Your task to perform on an android device: Open CNN.com Image 0: 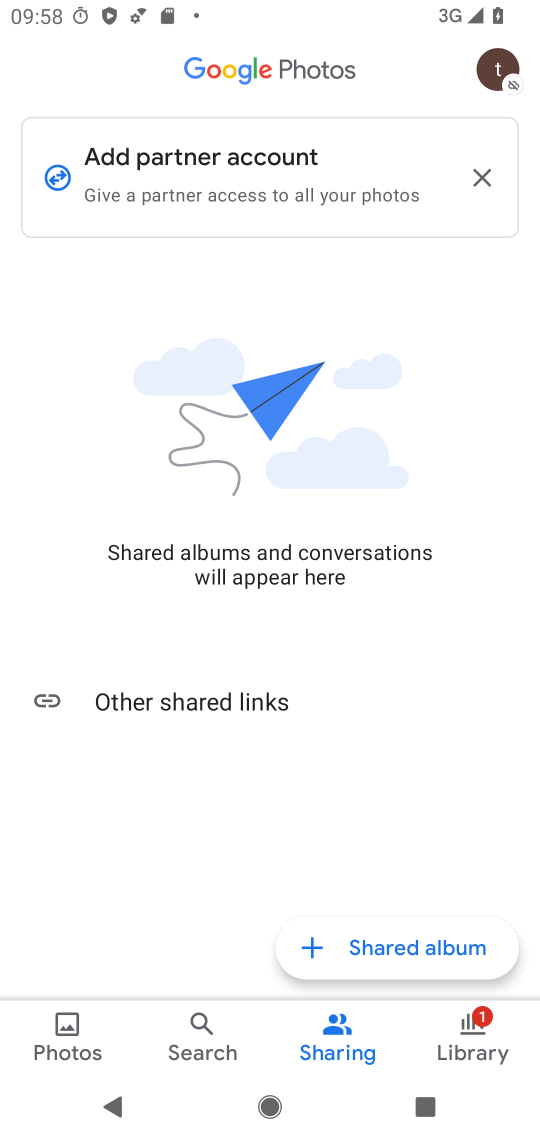
Step 0: press home button
Your task to perform on an android device: Open CNN.com Image 1: 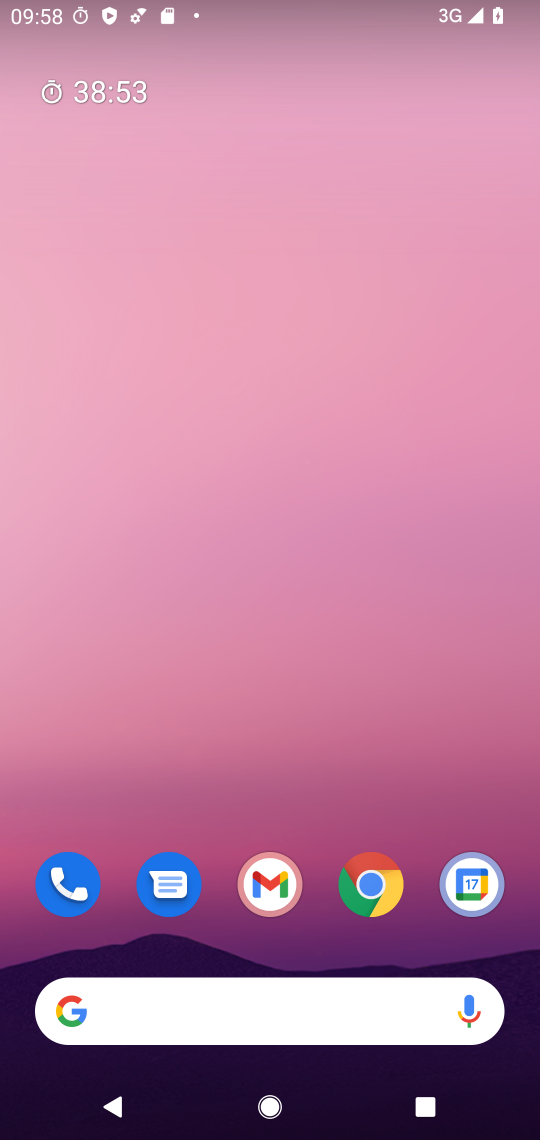
Step 1: click (357, 866)
Your task to perform on an android device: Open CNN.com Image 2: 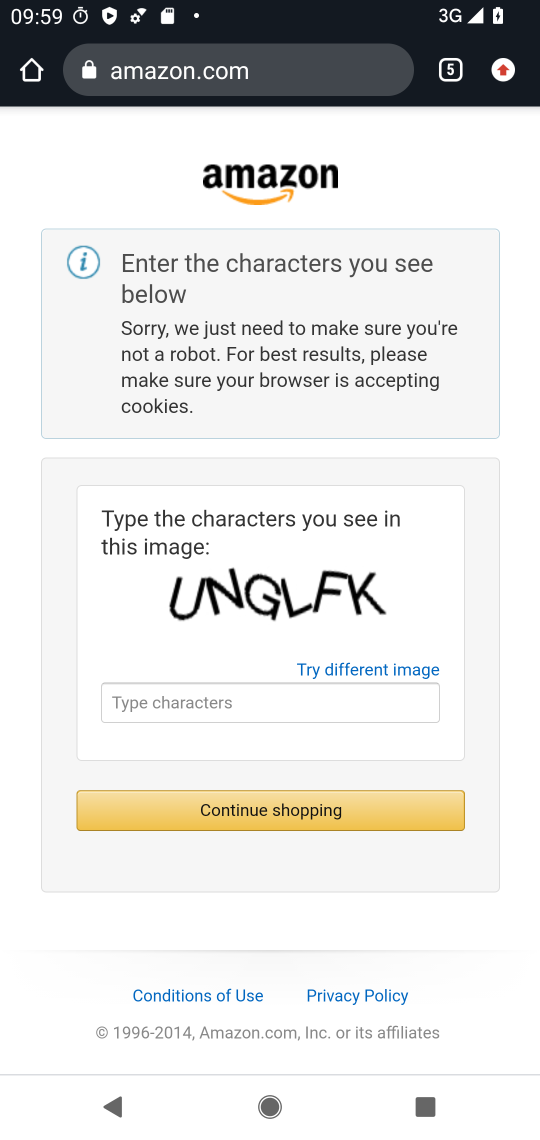
Step 2: click (456, 80)
Your task to perform on an android device: Open CNN.com Image 3: 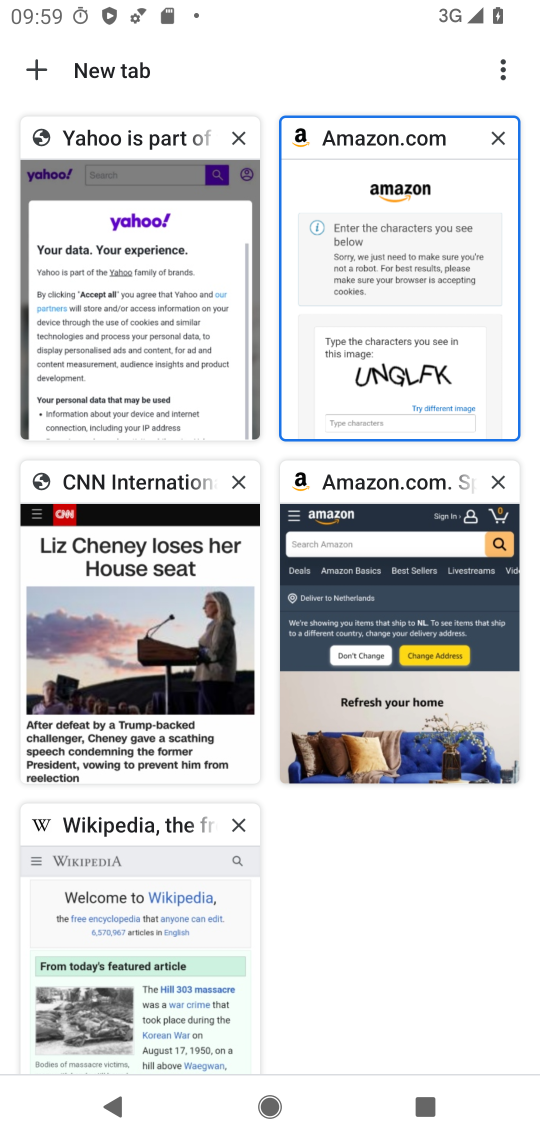
Step 3: click (111, 621)
Your task to perform on an android device: Open CNN.com Image 4: 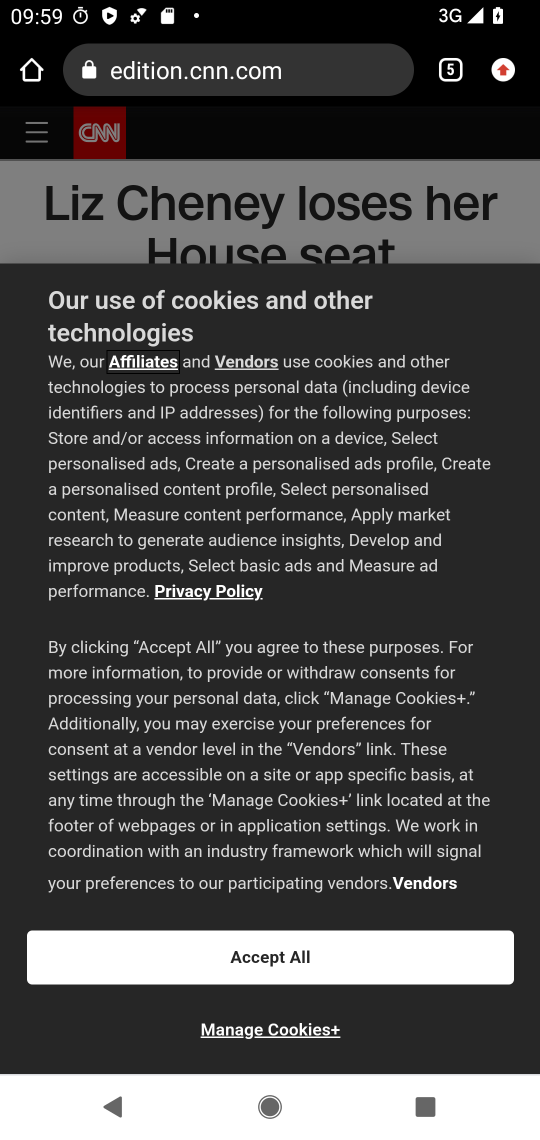
Step 4: task complete